Your task to perform on an android device: turn on showing notifications on the lock screen Image 0: 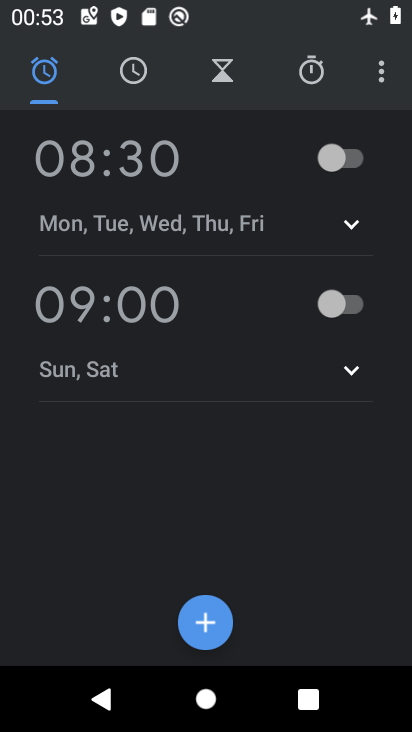
Step 0: press home button
Your task to perform on an android device: turn on showing notifications on the lock screen Image 1: 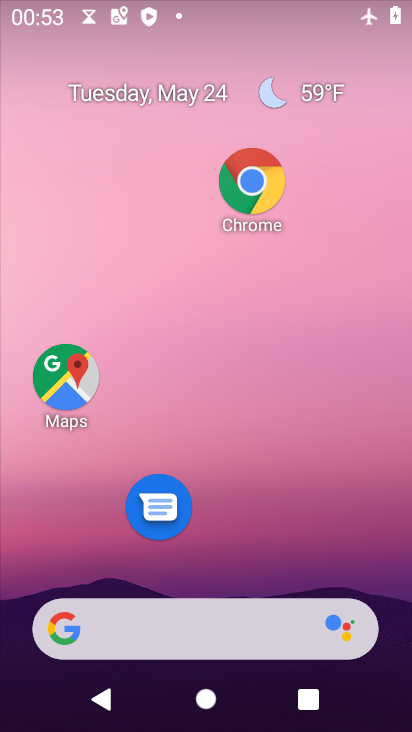
Step 1: drag from (264, 555) to (344, 250)
Your task to perform on an android device: turn on showing notifications on the lock screen Image 2: 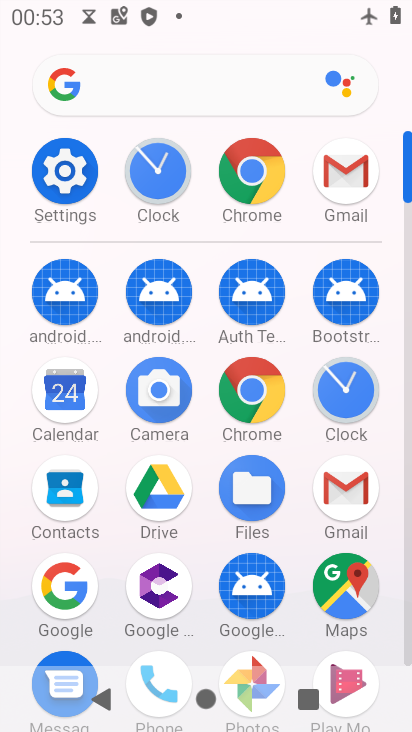
Step 2: click (250, 386)
Your task to perform on an android device: turn on showing notifications on the lock screen Image 3: 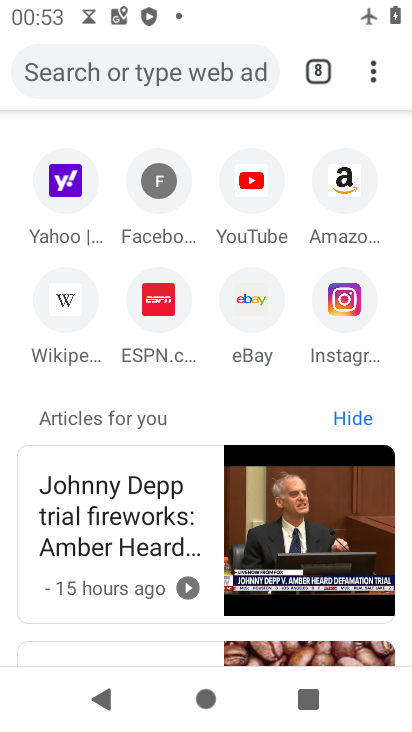
Step 3: press home button
Your task to perform on an android device: turn on showing notifications on the lock screen Image 4: 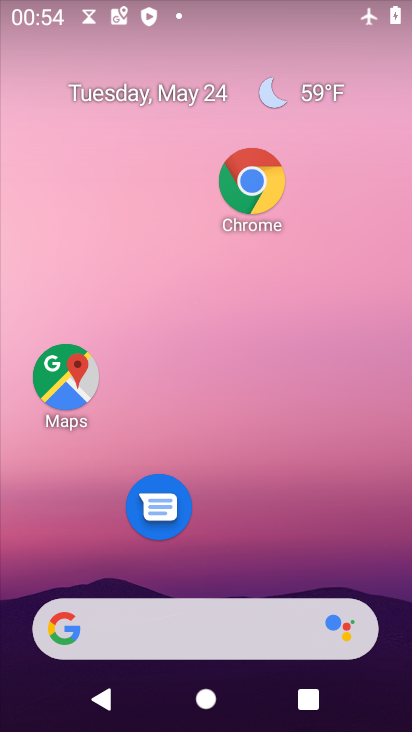
Step 4: drag from (337, 424) to (363, 245)
Your task to perform on an android device: turn on showing notifications on the lock screen Image 5: 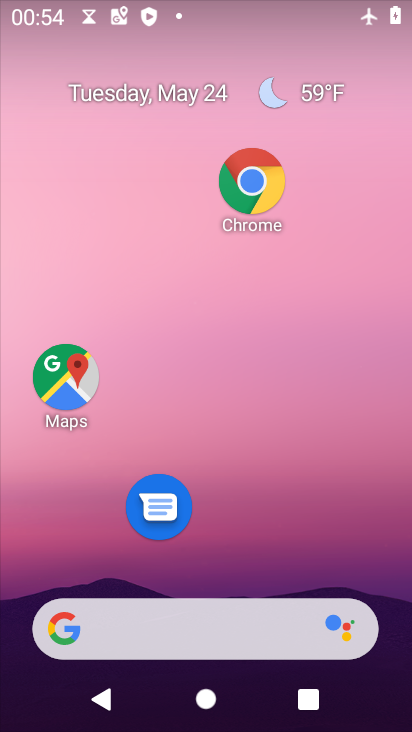
Step 5: drag from (306, 484) to (329, 295)
Your task to perform on an android device: turn on showing notifications on the lock screen Image 6: 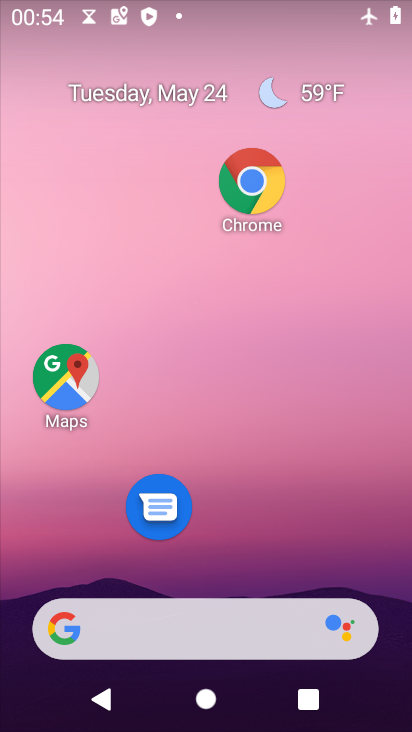
Step 6: drag from (283, 448) to (297, 328)
Your task to perform on an android device: turn on showing notifications on the lock screen Image 7: 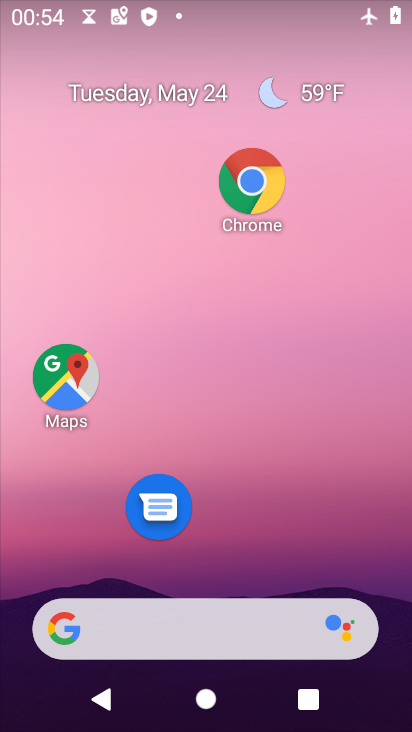
Step 7: drag from (202, 635) to (270, 187)
Your task to perform on an android device: turn on showing notifications on the lock screen Image 8: 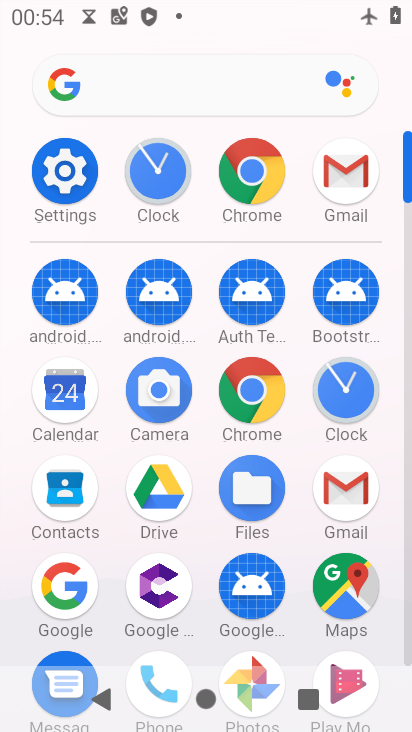
Step 8: click (48, 172)
Your task to perform on an android device: turn on showing notifications on the lock screen Image 9: 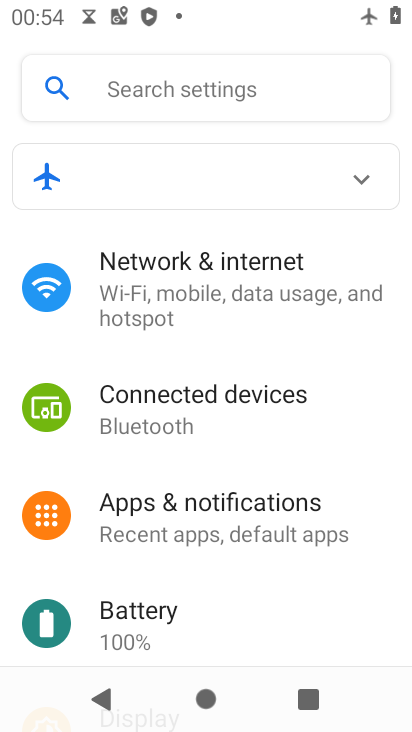
Step 9: click (261, 504)
Your task to perform on an android device: turn on showing notifications on the lock screen Image 10: 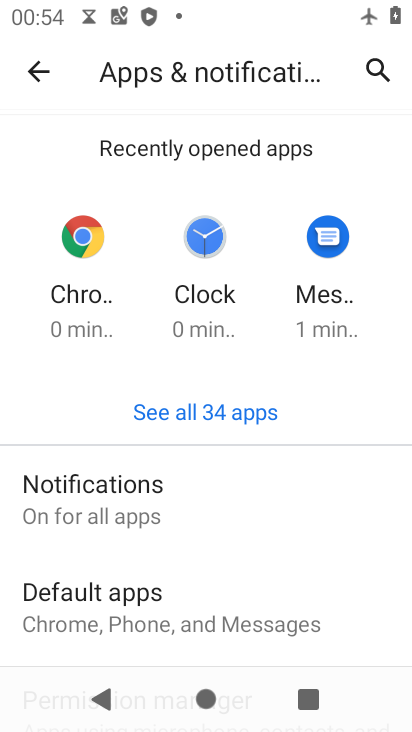
Step 10: click (146, 495)
Your task to perform on an android device: turn on showing notifications on the lock screen Image 11: 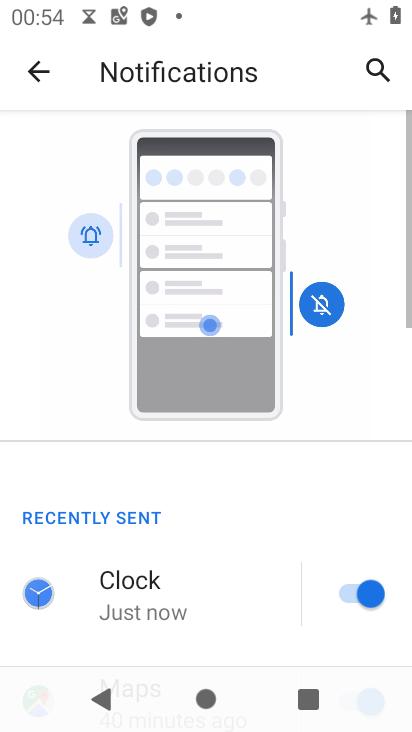
Step 11: drag from (332, 570) to (379, 102)
Your task to perform on an android device: turn on showing notifications on the lock screen Image 12: 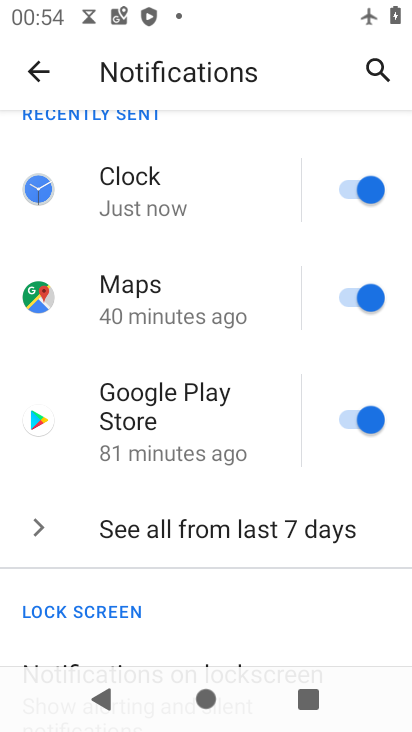
Step 12: drag from (171, 577) to (264, 121)
Your task to perform on an android device: turn on showing notifications on the lock screen Image 13: 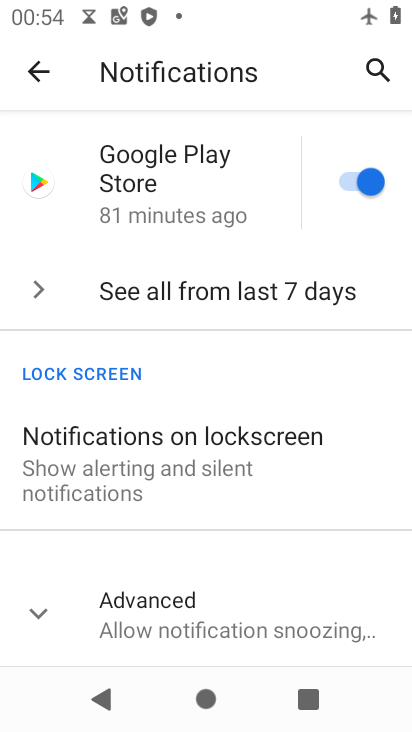
Step 13: click (143, 464)
Your task to perform on an android device: turn on showing notifications on the lock screen Image 14: 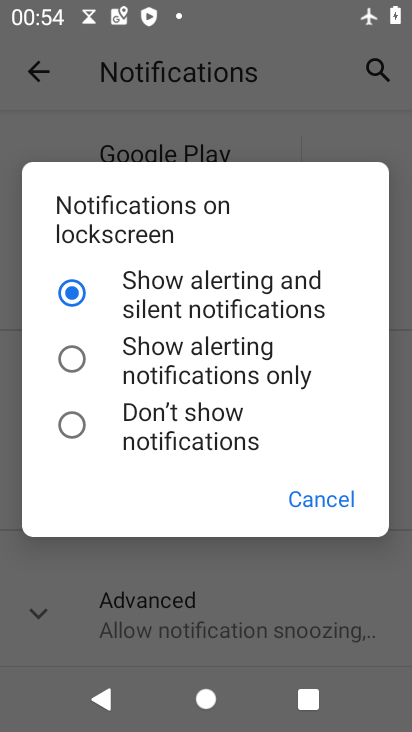
Step 14: click (149, 355)
Your task to perform on an android device: turn on showing notifications on the lock screen Image 15: 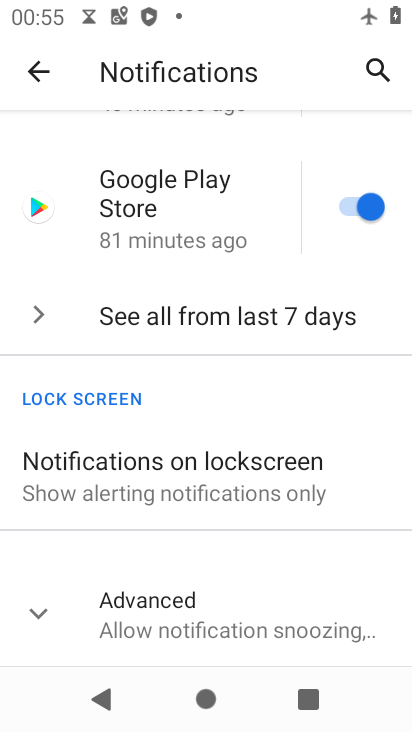
Step 15: task complete